Your task to perform on an android device: turn off javascript in the chrome app Image 0: 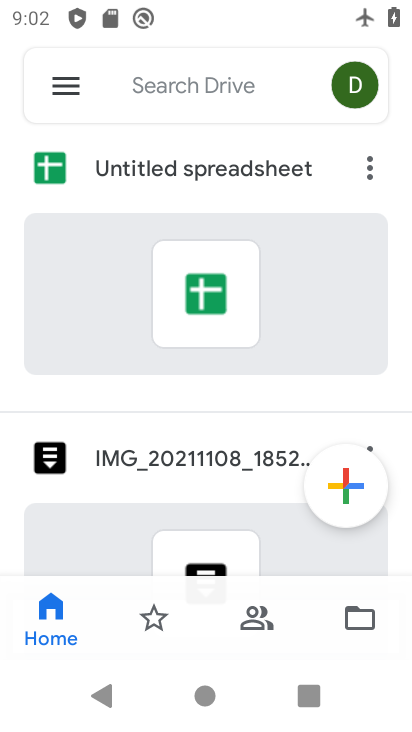
Step 0: press home button
Your task to perform on an android device: turn off javascript in the chrome app Image 1: 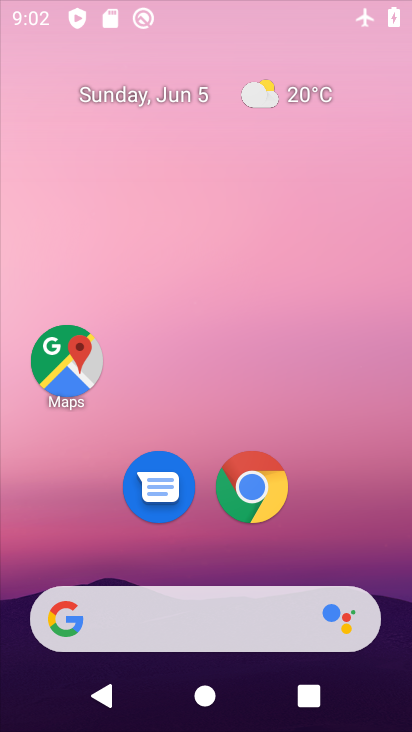
Step 1: drag from (241, 573) to (258, 414)
Your task to perform on an android device: turn off javascript in the chrome app Image 2: 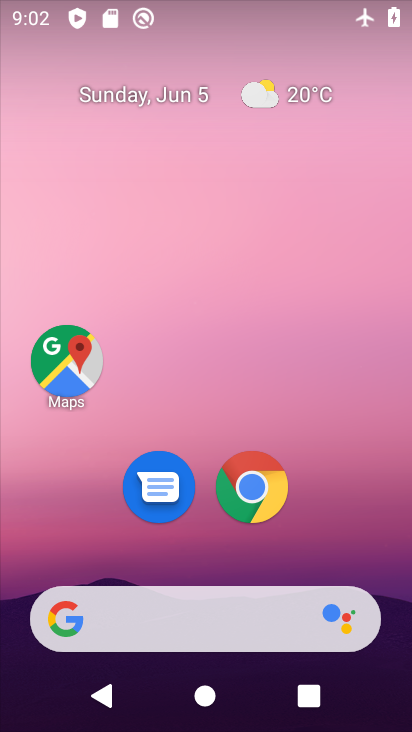
Step 2: drag from (171, 596) to (198, 351)
Your task to perform on an android device: turn off javascript in the chrome app Image 3: 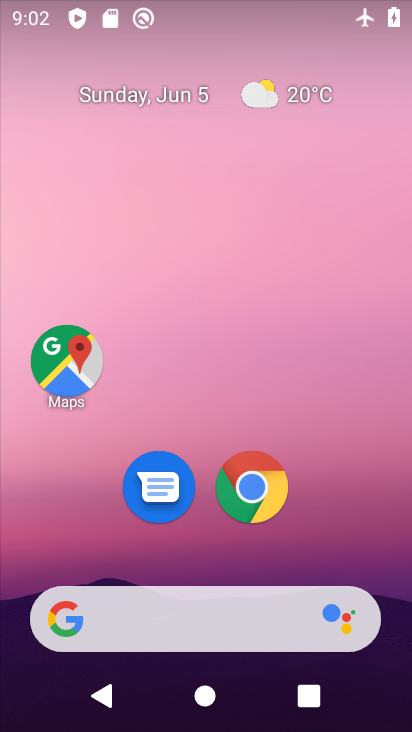
Step 3: click (256, 504)
Your task to perform on an android device: turn off javascript in the chrome app Image 4: 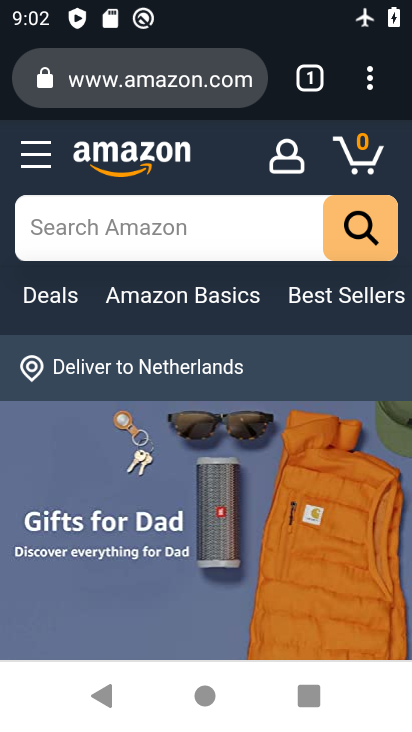
Step 4: click (373, 91)
Your task to perform on an android device: turn off javascript in the chrome app Image 5: 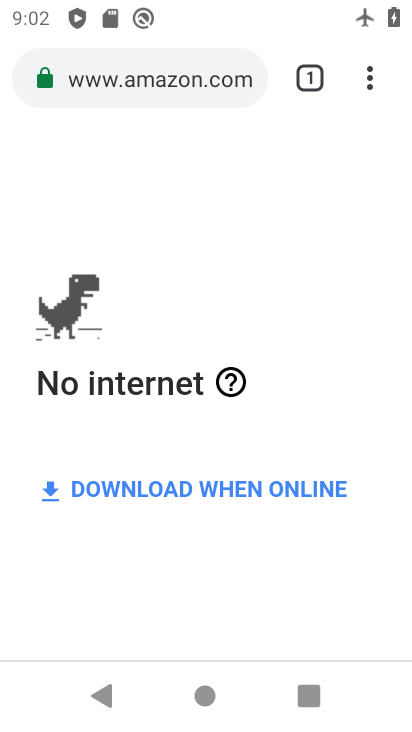
Step 5: click (378, 95)
Your task to perform on an android device: turn off javascript in the chrome app Image 6: 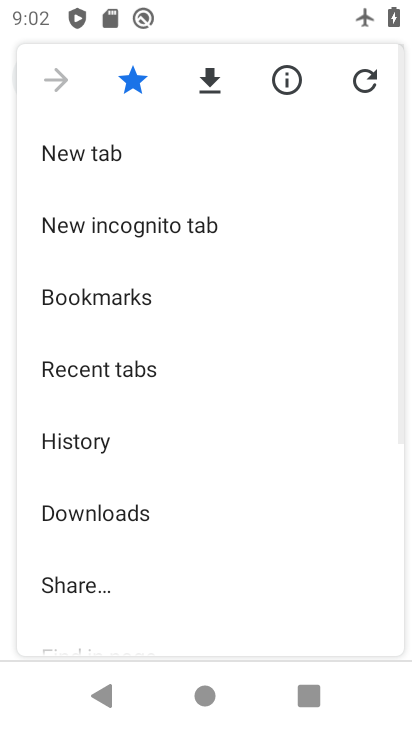
Step 6: drag from (183, 462) to (233, 212)
Your task to perform on an android device: turn off javascript in the chrome app Image 7: 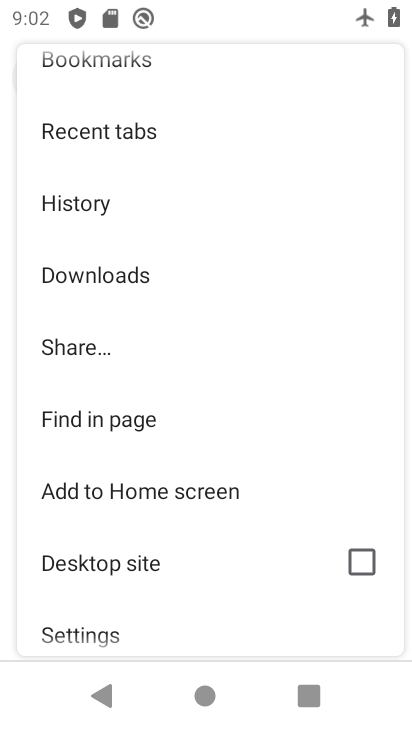
Step 7: drag from (190, 481) to (197, 241)
Your task to perform on an android device: turn off javascript in the chrome app Image 8: 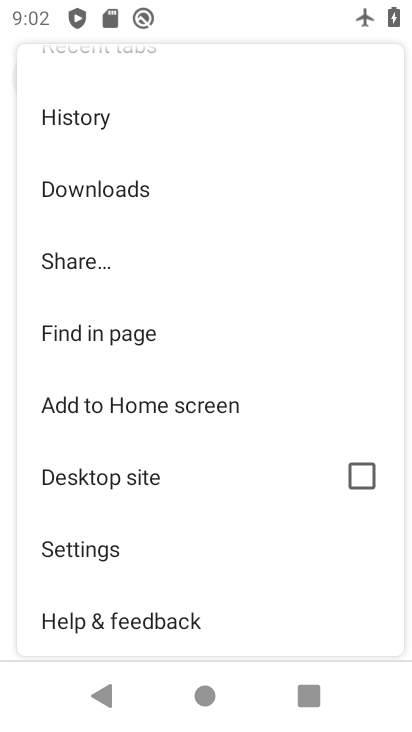
Step 8: click (141, 547)
Your task to perform on an android device: turn off javascript in the chrome app Image 9: 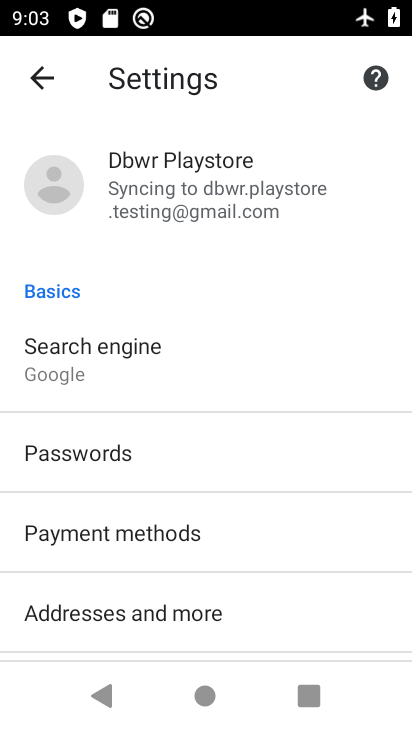
Step 9: drag from (161, 556) to (169, 437)
Your task to perform on an android device: turn off javascript in the chrome app Image 10: 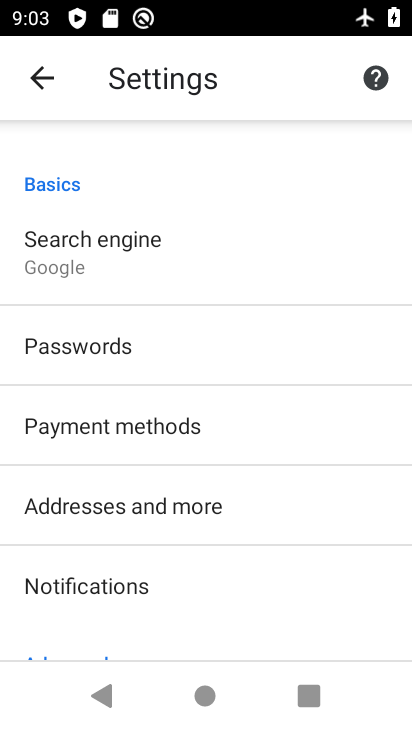
Step 10: drag from (162, 535) to (163, 384)
Your task to perform on an android device: turn off javascript in the chrome app Image 11: 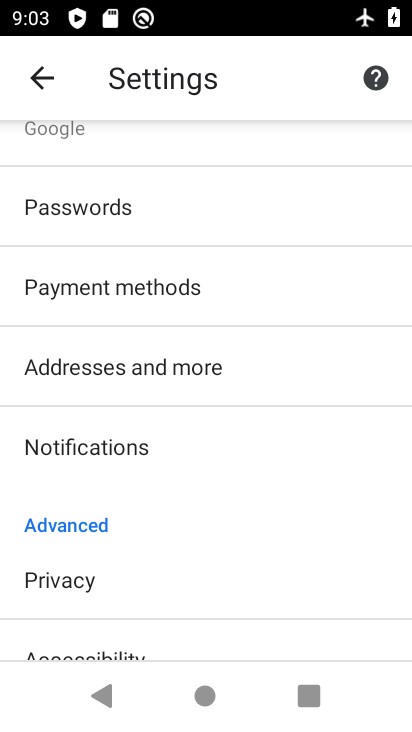
Step 11: drag from (178, 567) to (198, 291)
Your task to perform on an android device: turn off javascript in the chrome app Image 12: 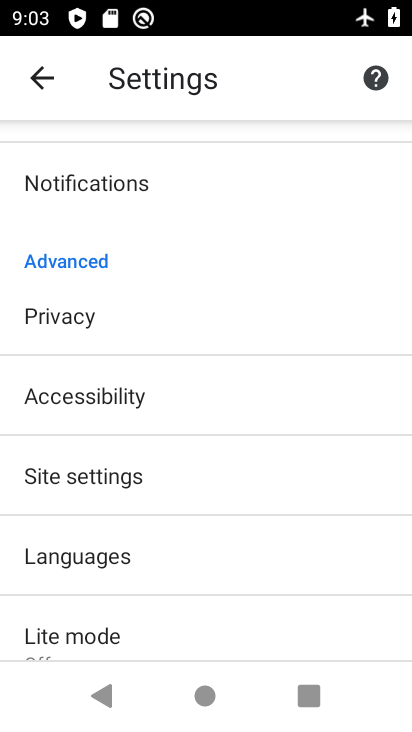
Step 12: click (147, 468)
Your task to perform on an android device: turn off javascript in the chrome app Image 13: 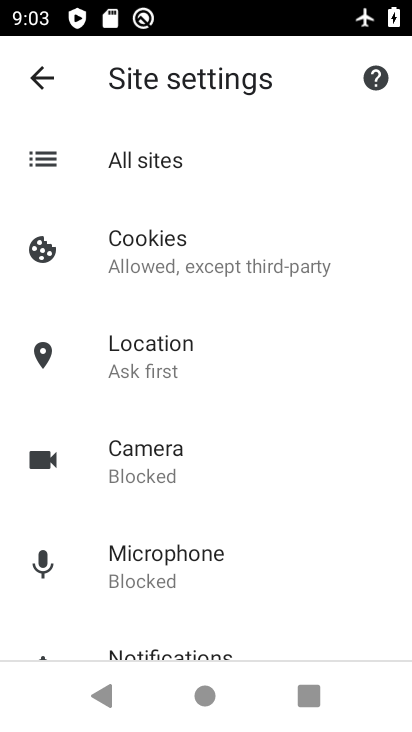
Step 13: drag from (166, 550) to (195, 248)
Your task to perform on an android device: turn off javascript in the chrome app Image 14: 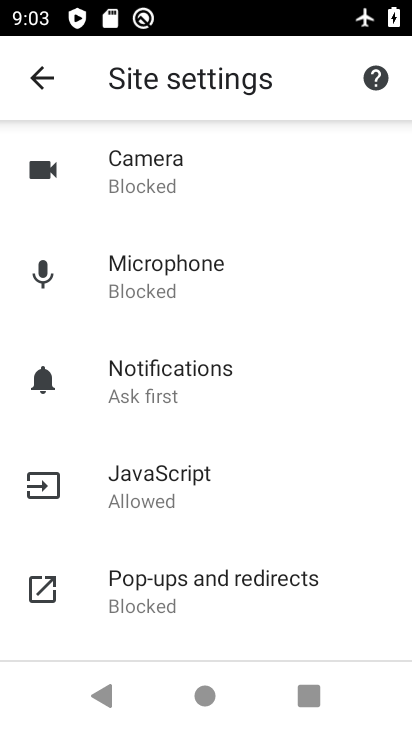
Step 14: click (198, 492)
Your task to perform on an android device: turn off javascript in the chrome app Image 15: 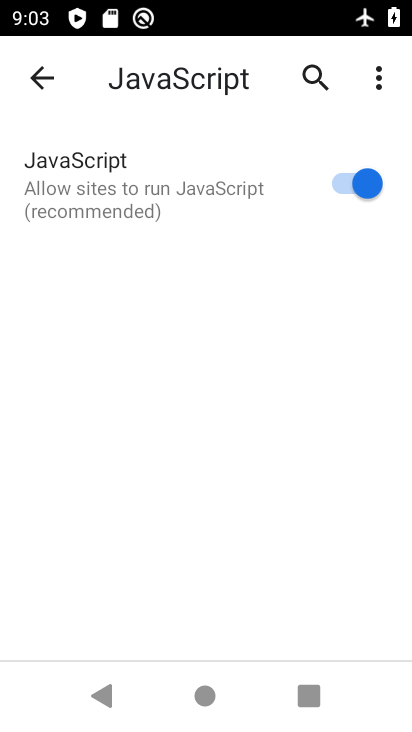
Step 15: click (327, 178)
Your task to perform on an android device: turn off javascript in the chrome app Image 16: 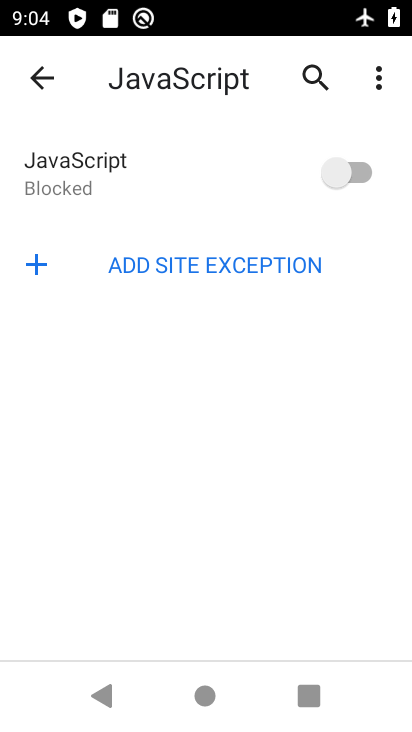
Step 16: task complete